Your task to perform on an android device: toggle sleep mode Image 0: 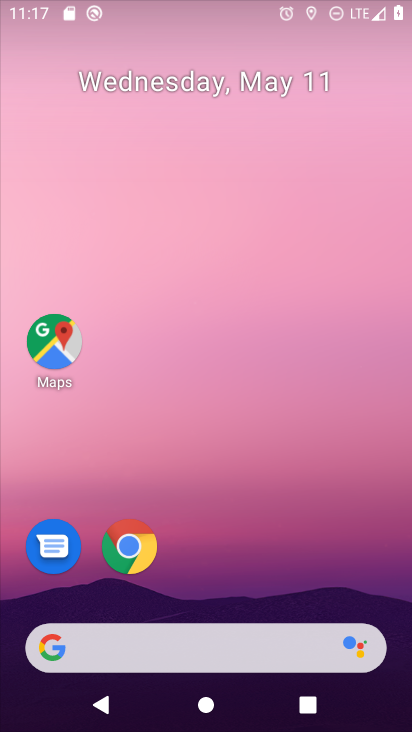
Step 0: drag from (388, 617) to (290, 38)
Your task to perform on an android device: toggle sleep mode Image 1: 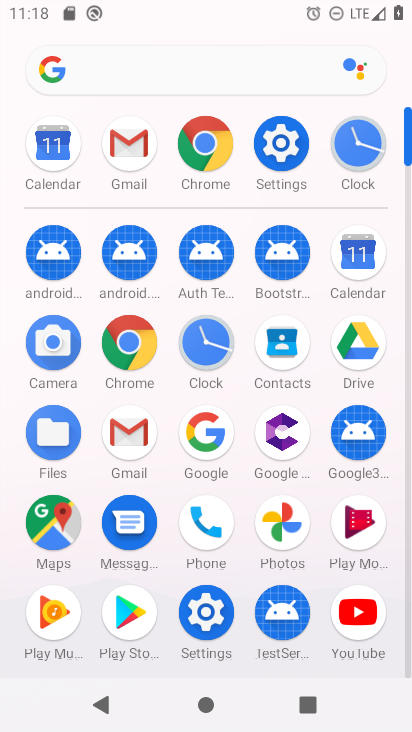
Step 1: click (220, 610)
Your task to perform on an android device: toggle sleep mode Image 2: 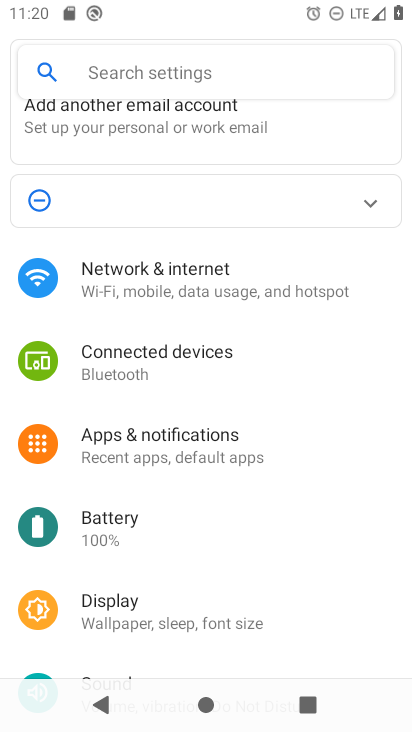
Step 2: task complete